Your task to perform on an android device: turn off notifications in google photos Image 0: 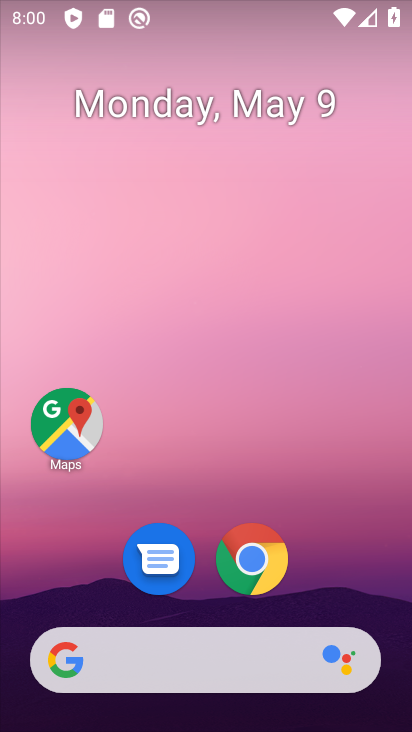
Step 0: drag from (358, 655) to (234, 65)
Your task to perform on an android device: turn off notifications in google photos Image 1: 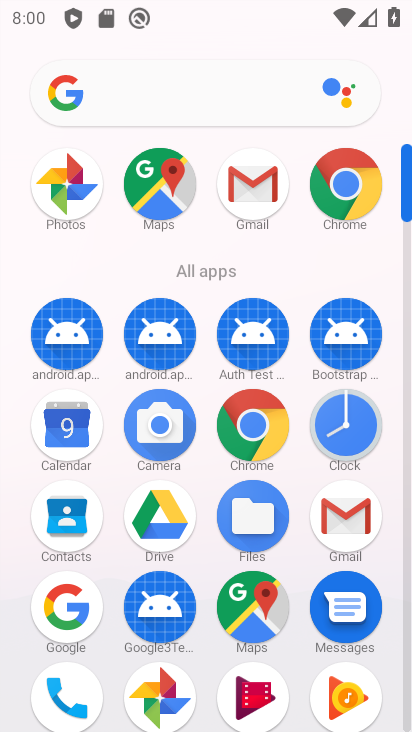
Step 1: click (66, 189)
Your task to perform on an android device: turn off notifications in google photos Image 2: 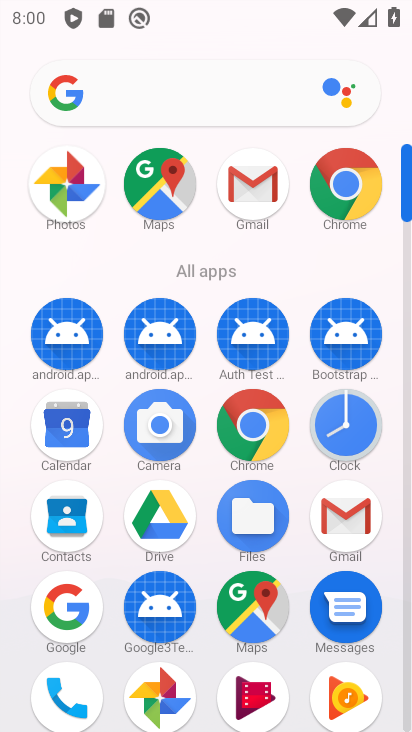
Step 2: click (67, 189)
Your task to perform on an android device: turn off notifications in google photos Image 3: 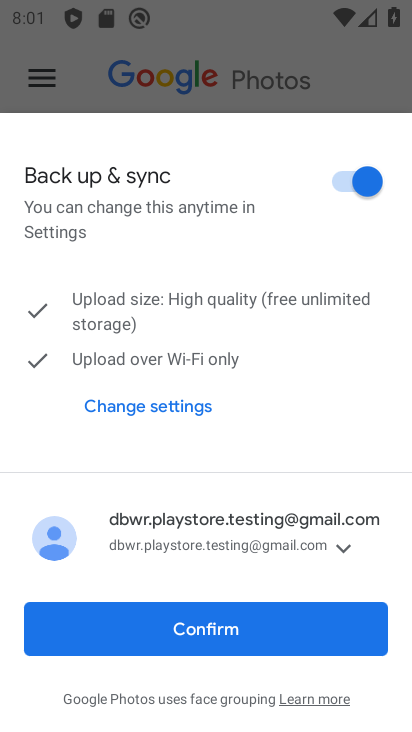
Step 3: click (217, 629)
Your task to perform on an android device: turn off notifications in google photos Image 4: 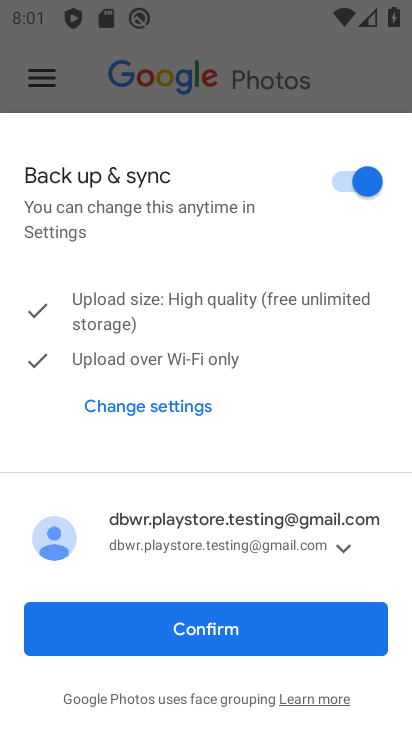
Step 4: click (217, 629)
Your task to perform on an android device: turn off notifications in google photos Image 5: 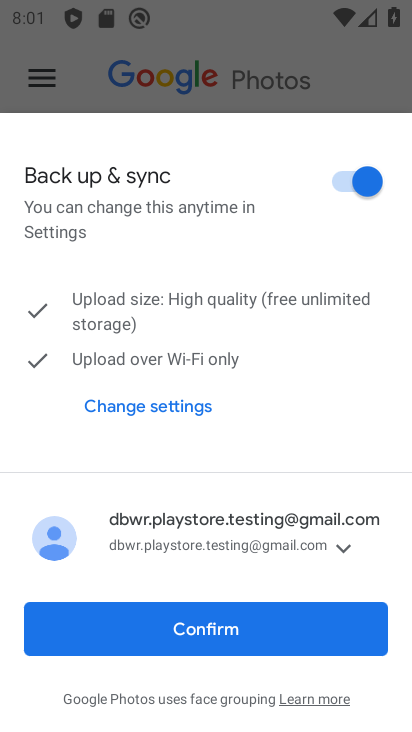
Step 5: click (217, 629)
Your task to perform on an android device: turn off notifications in google photos Image 6: 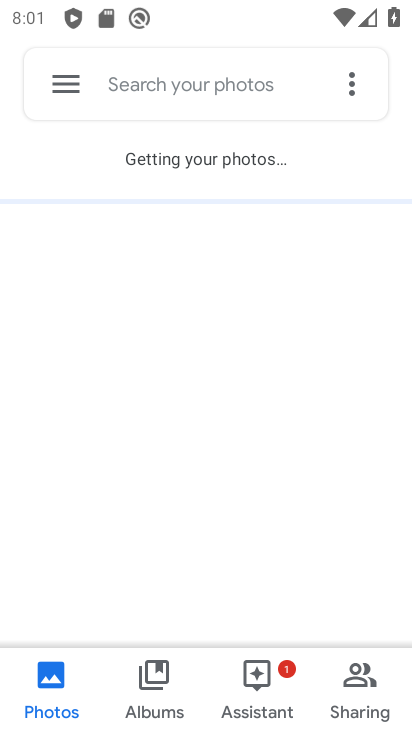
Step 6: drag from (52, 81) to (89, 263)
Your task to perform on an android device: turn off notifications in google photos Image 7: 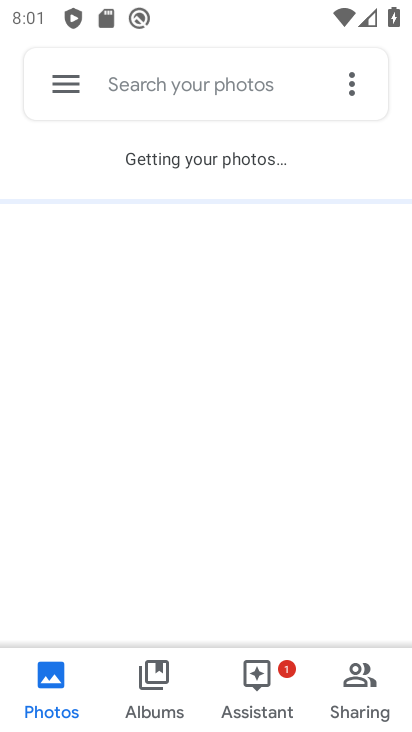
Step 7: click (72, 93)
Your task to perform on an android device: turn off notifications in google photos Image 8: 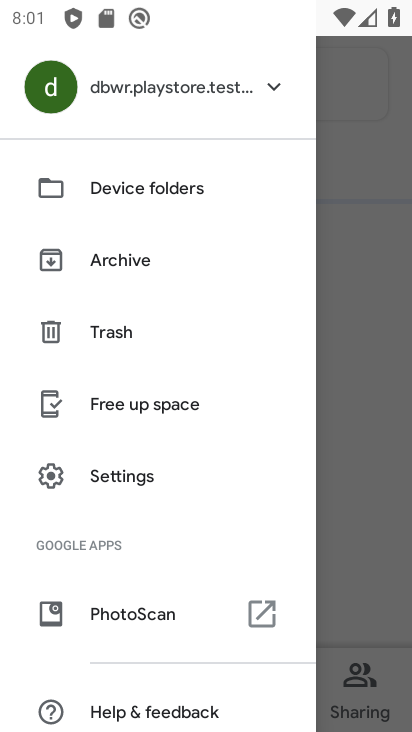
Step 8: click (71, 92)
Your task to perform on an android device: turn off notifications in google photos Image 9: 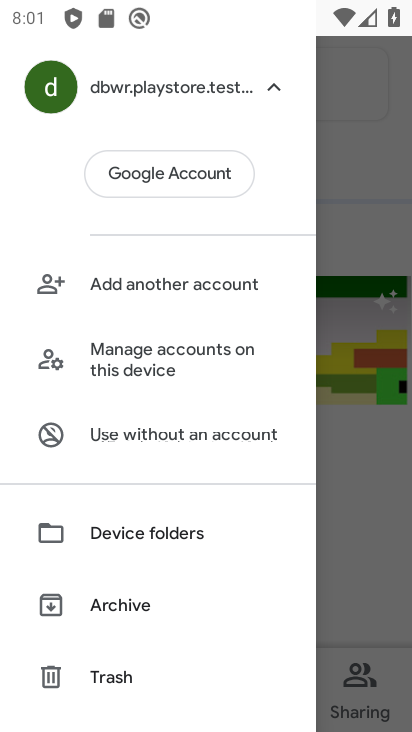
Step 9: drag from (165, 573) to (162, 248)
Your task to perform on an android device: turn off notifications in google photos Image 10: 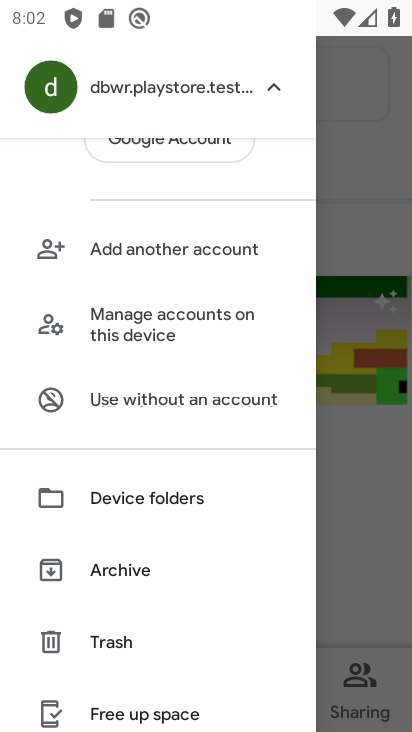
Step 10: drag from (164, 607) to (165, 304)
Your task to perform on an android device: turn off notifications in google photos Image 11: 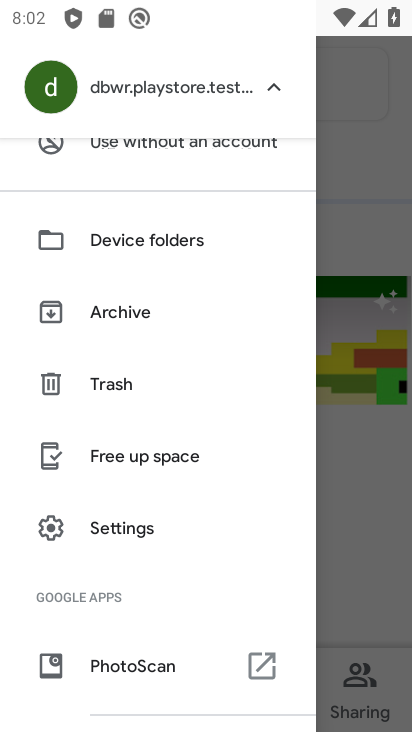
Step 11: drag from (248, 544) to (160, 227)
Your task to perform on an android device: turn off notifications in google photos Image 12: 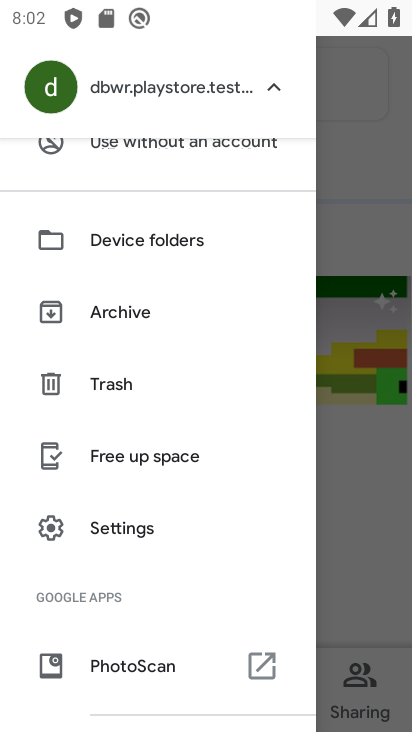
Step 12: drag from (162, 468) to (126, 171)
Your task to perform on an android device: turn off notifications in google photos Image 13: 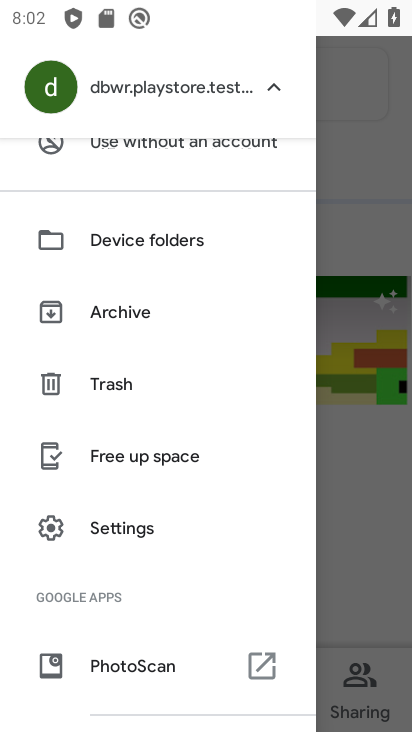
Step 13: click (100, 525)
Your task to perform on an android device: turn off notifications in google photos Image 14: 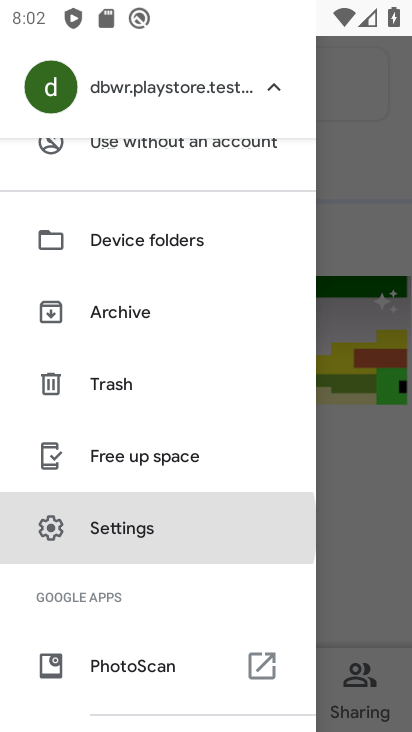
Step 14: click (101, 526)
Your task to perform on an android device: turn off notifications in google photos Image 15: 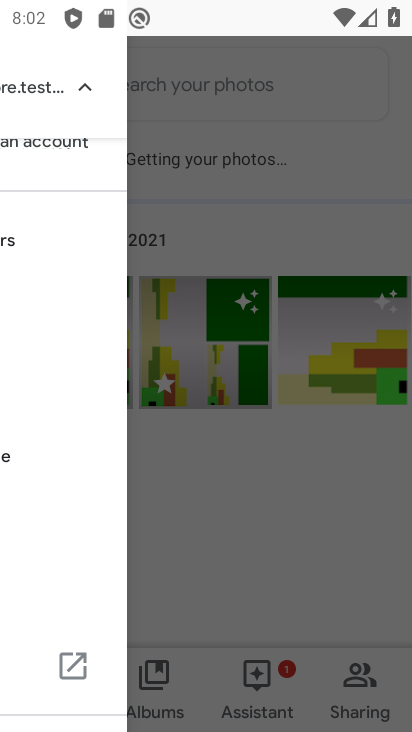
Step 15: click (103, 524)
Your task to perform on an android device: turn off notifications in google photos Image 16: 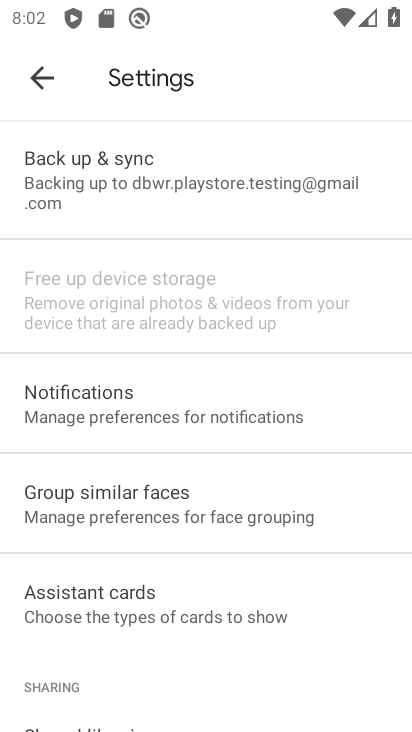
Step 16: click (76, 400)
Your task to perform on an android device: turn off notifications in google photos Image 17: 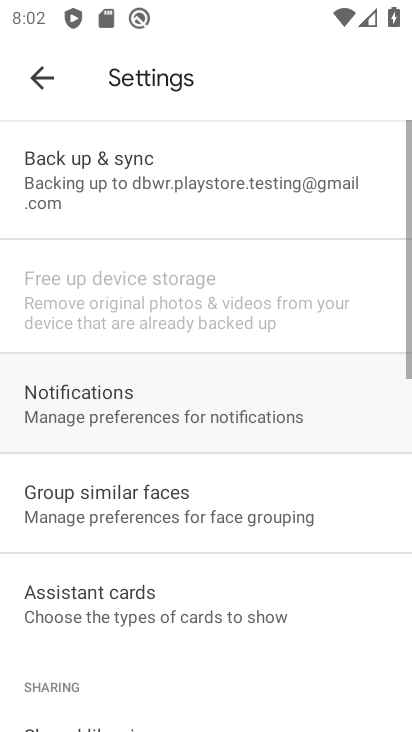
Step 17: click (77, 401)
Your task to perform on an android device: turn off notifications in google photos Image 18: 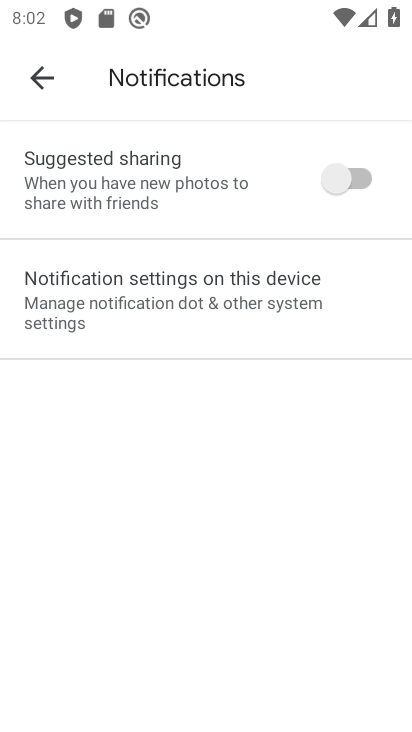
Step 18: click (167, 276)
Your task to perform on an android device: turn off notifications in google photos Image 19: 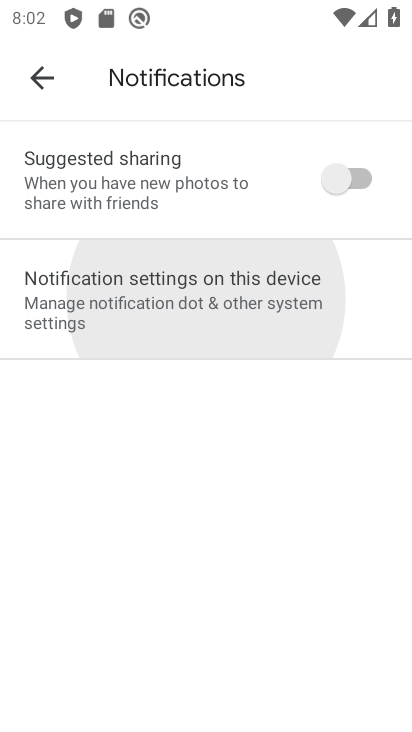
Step 19: click (167, 276)
Your task to perform on an android device: turn off notifications in google photos Image 20: 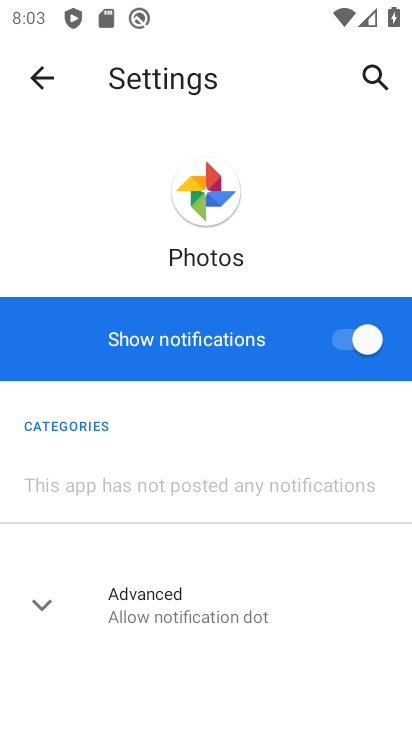
Step 20: click (362, 333)
Your task to perform on an android device: turn off notifications in google photos Image 21: 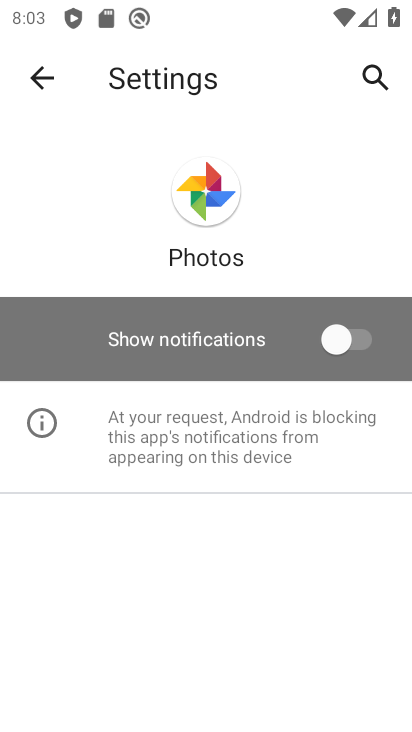
Step 21: task complete